Your task to perform on an android device: clear history in the chrome app Image 0: 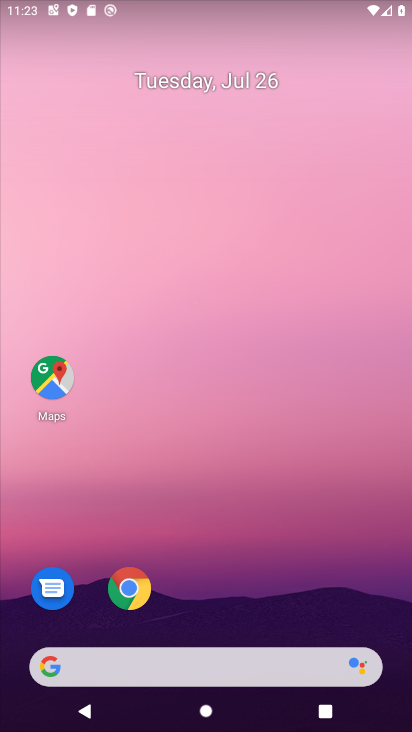
Step 0: drag from (268, 517) to (297, 182)
Your task to perform on an android device: clear history in the chrome app Image 1: 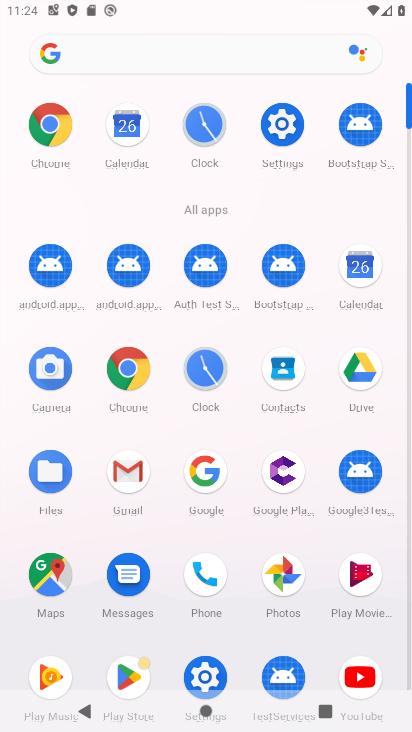
Step 1: click (126, 371)
Your task to perform on an android device: clear history in the chrome app Image 2: 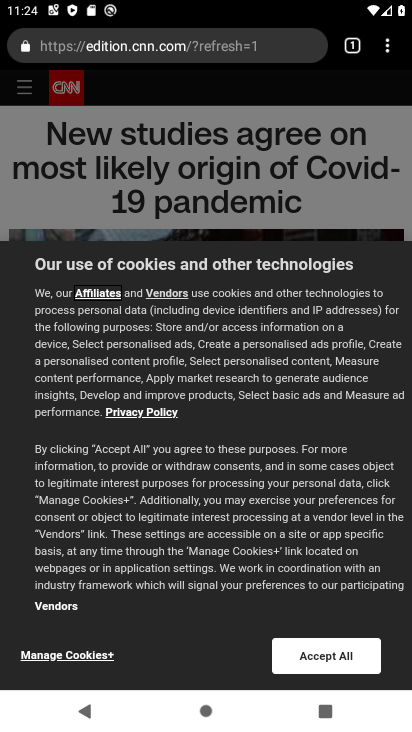
Step 2: press home button
Your task to perform on an android device: clear history in the chrome app Image 3: 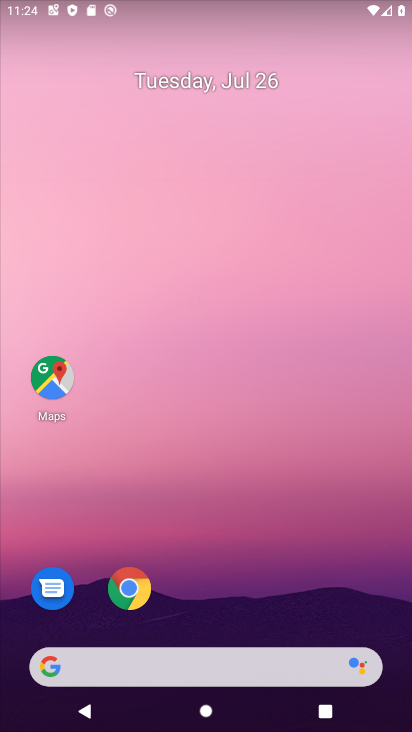
Step 3: click (128, 582)
Your task to perform on an android device: clear history in the chrome app Image 4: 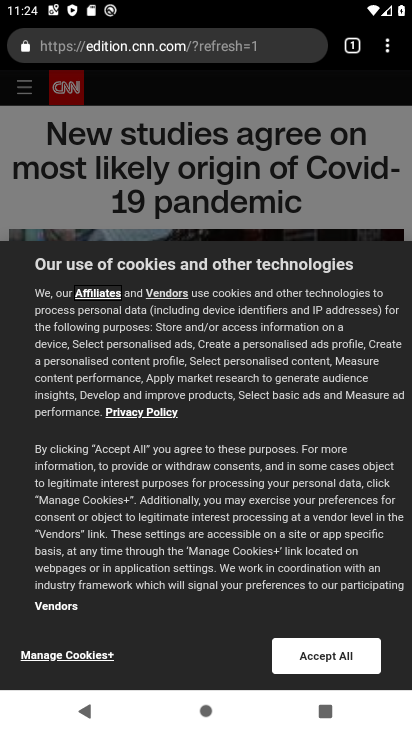
Step 4: click (388, 43)
Your task to perform on an android device: clear history in the chrome app Image 5: 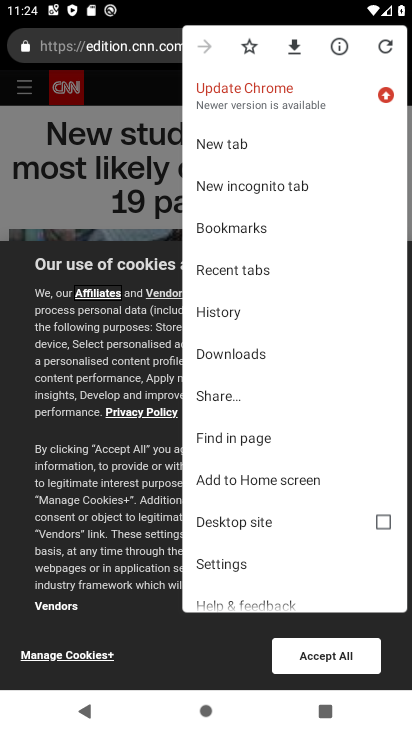
Step 5: click (233, 313)
Your task to perform on an android device: clear history in the chrome app Image 6: 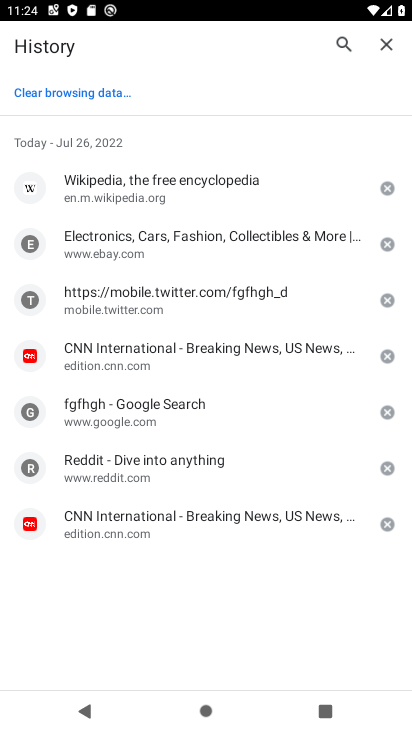
Step 6: click (102, 97)
Your task to perform on an android device: clear history in the chrome app Image 7: 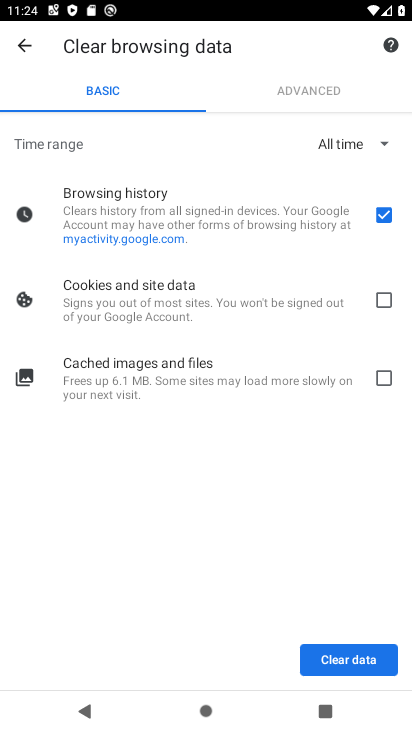
Step 7: click (353, 660)
Your task to perform on an android device: clear history in the chrome app Image 8: 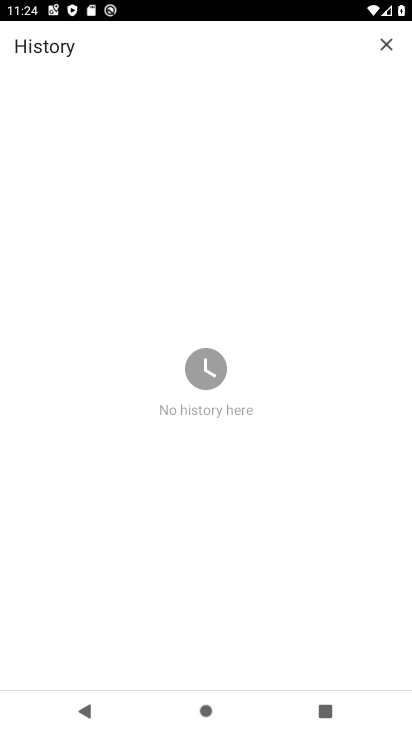
Step 8: task complete